Your task to perform on an android device: turn on javascript in the chrome app Image 0: 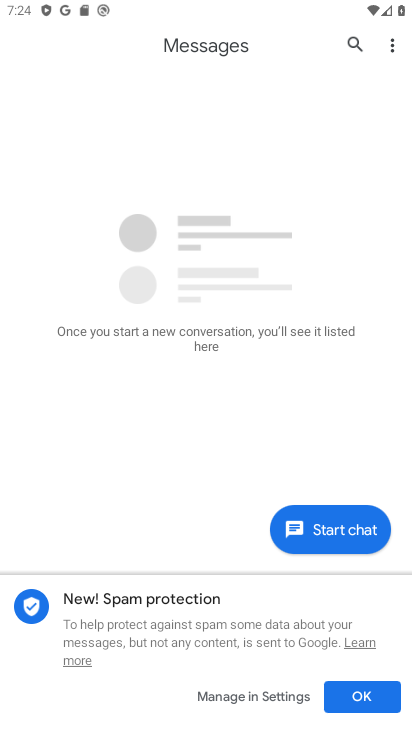
Step 0: press home button
Your task to perform on an android device: turn on javascript in the chrome app Image 1: 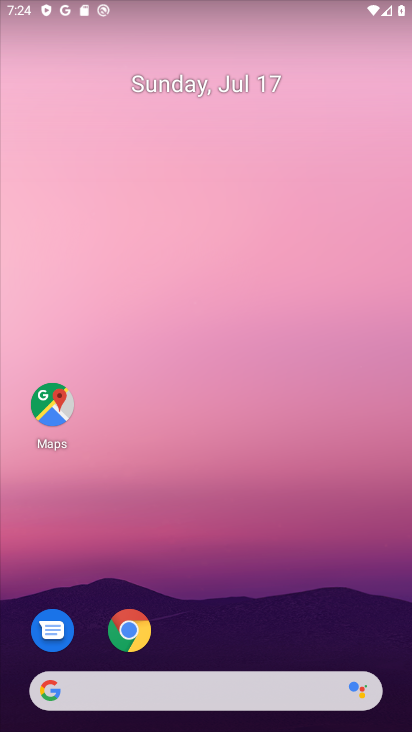
Step 1: click (136, 641)
Your task to perform on an android device: turn on javascript in the chrome app Image 2: 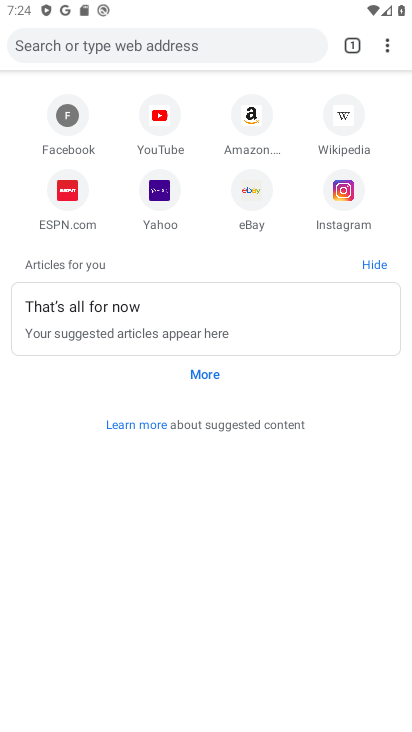
Step 2: click (382, 47)
Your task to perform on an android device: turn on javascript in the chrome app Image 3: 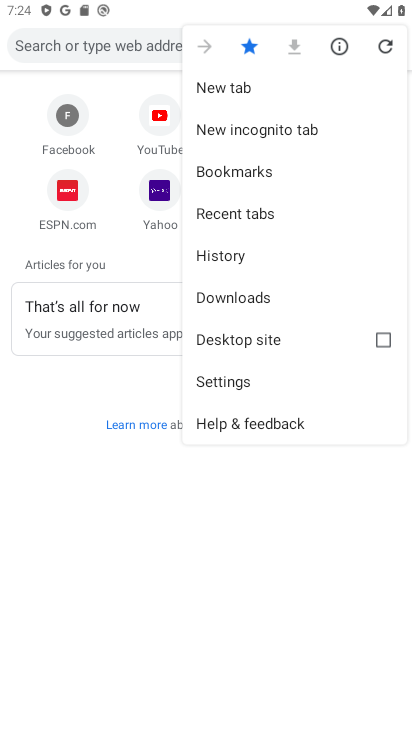
Step 3: click (249, 379)
Your task to perform on an android device: turn on javascript in the chrome app Image 4: 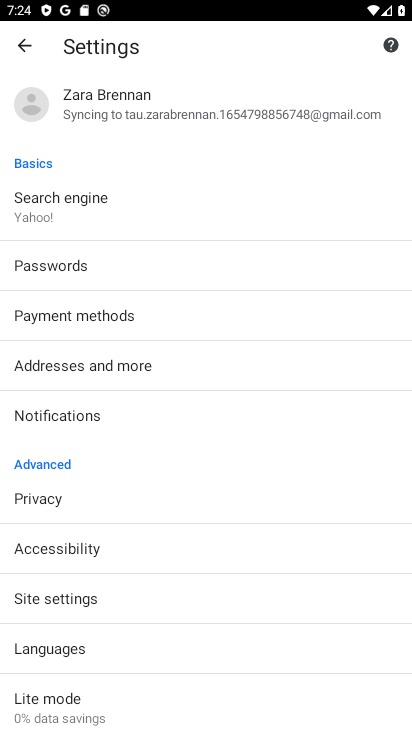
Step 4: click (111, 592)
Your task to perform on an android device: turn on javascript in the chrome app Image 5: 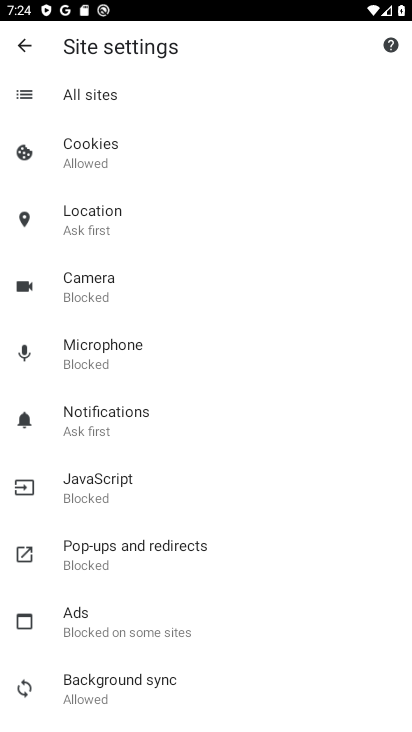
Step 5: click (111, 493)
Your task to perform on an android device: turn on javascript in the chrome app Image 6: 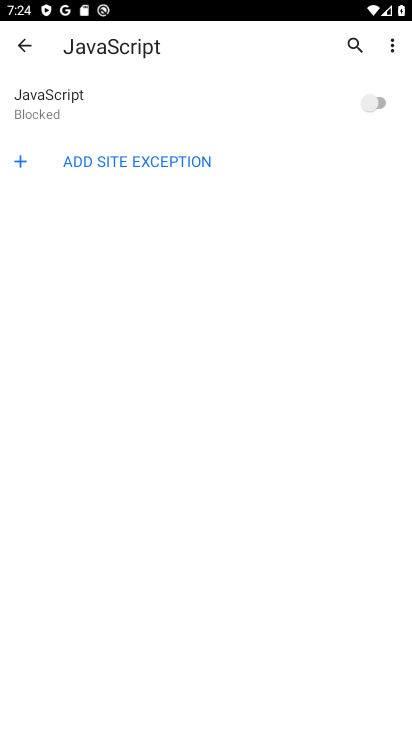
Step 6: click (386, 104)
Your task to perform on an android device: turn on javascript in the chrome app Image 7: 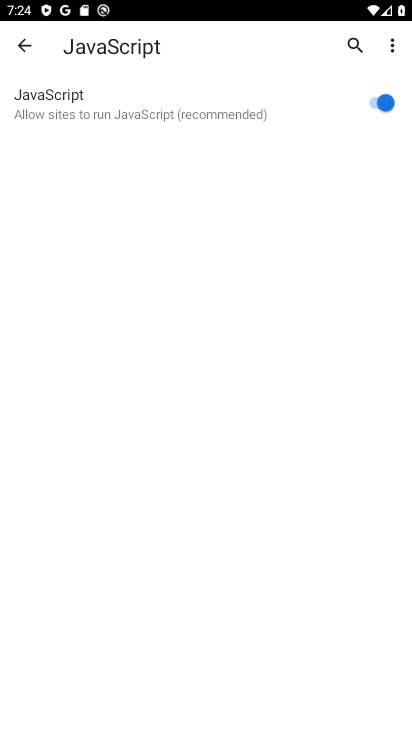
Step 7: task complete